Your task to perform on an android device: uninstall "Duolingo: language lessons" Image 0: 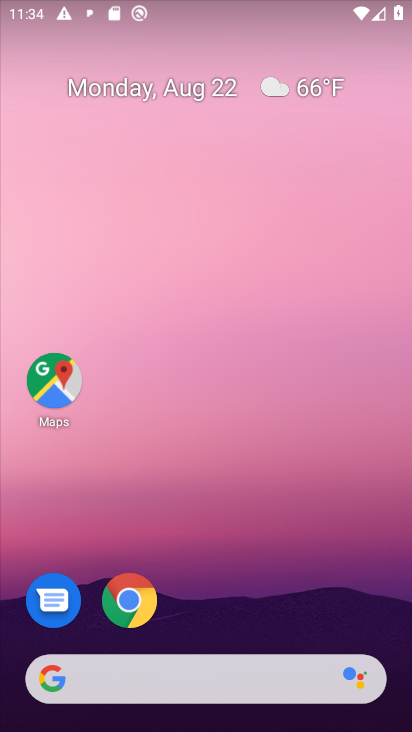
Step 0: drag from (219, 596) to (219, 124)
Your task to perform on an android device: uninstall "Duolingo: language lessons" Image 1: 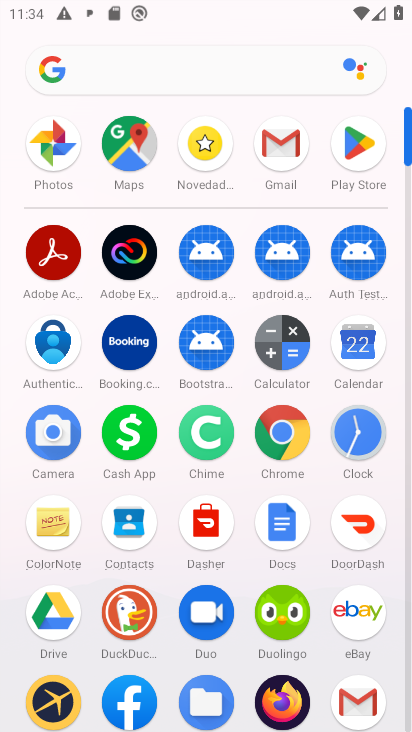
Step 1: click (340, 151)
Your task to perform on an android device: uninstall "Duolingo: language lessons" Image 2: 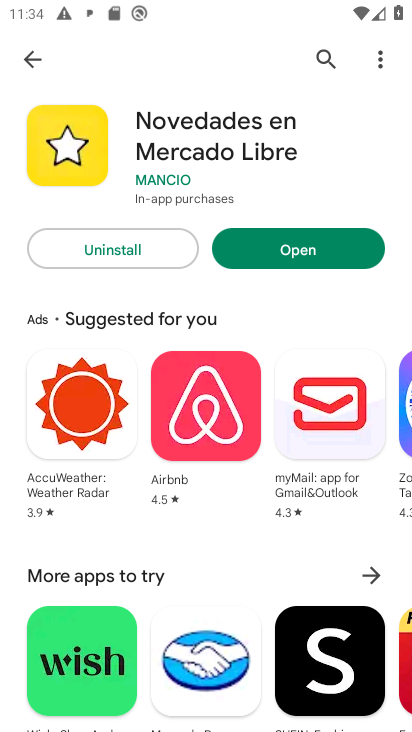
Step 2: click (316, 65)
Your task to perform on an android device: uninstall "Duolingo: language lessons" Image 3: 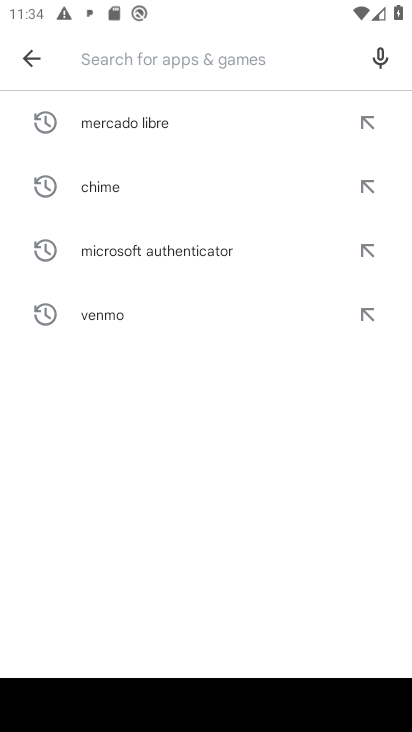
Step 3: type "Duolingo: language lessons"
Your task to perform on an android device: uninstall "Duolingo: language lessons" Image 4: 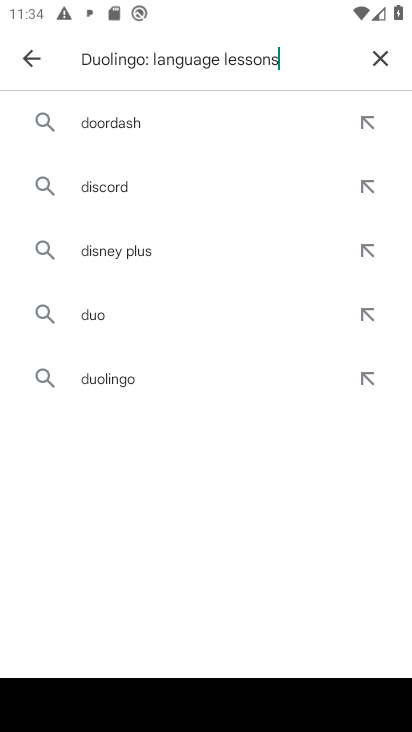
Step 4: type ""
Your task to perform on an android device: uninstall "Duolingo: language lessons" Image 5: 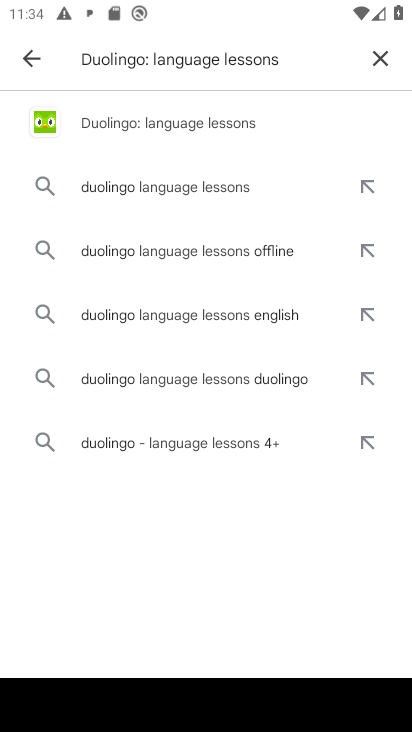
Step 5: click (156, 134)
Your task to perform on an android device: uninstall "Duolingo: language lessons" Image 6: 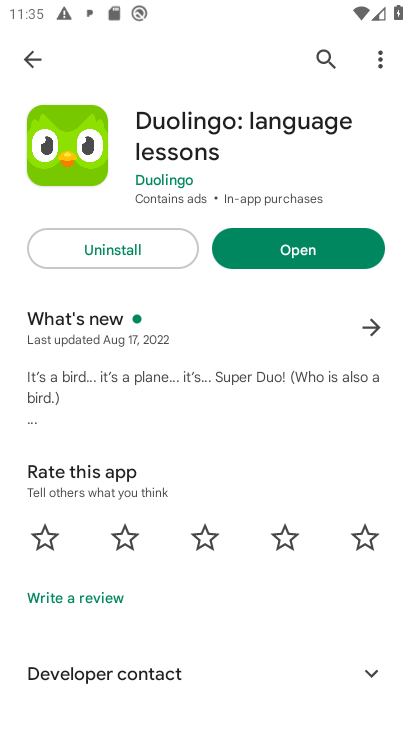
Step 6: click (129, 253)
Your task to perform on an android device: uninstall "Duolingo: language lessons" Image 7: 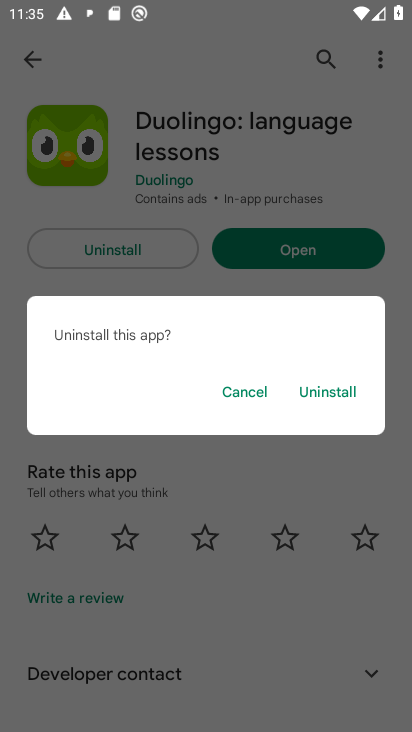
Step 7: click (330, 395)
Your task to perform on an android device: uninstall "Duolingo: language lessons" Image 8: 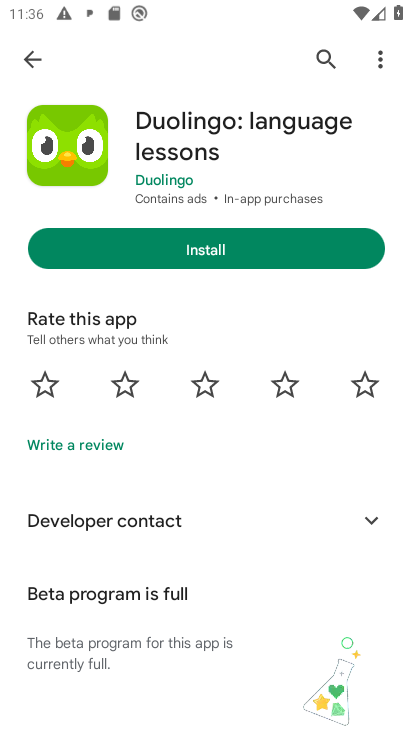
Step 8: task complete